Your task to perform on an android device: turn pop-ups on in chrome Image 0: 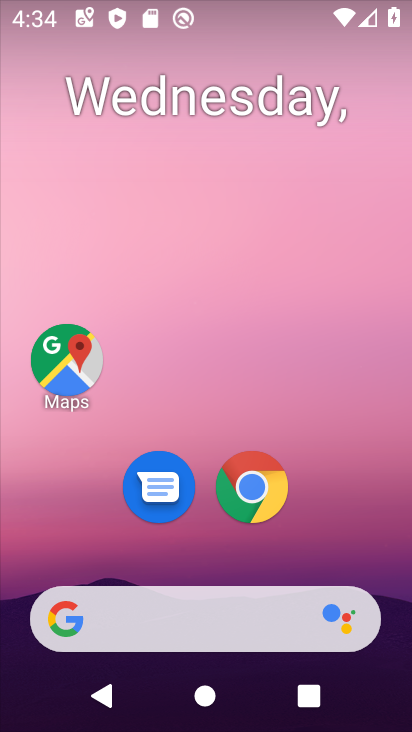
Step 0: press home button
Your task to perform on an android device: turn pop-ups on in chrome Image 1: 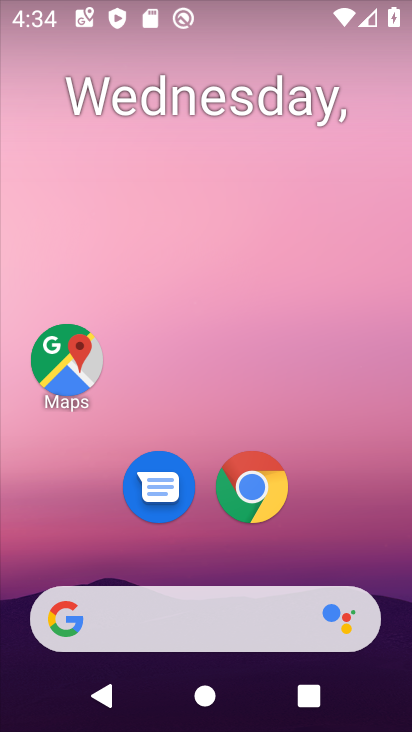
Step 1: press home button
Your task to perform on an android device: turn pop-ups on in chrome Image 2: 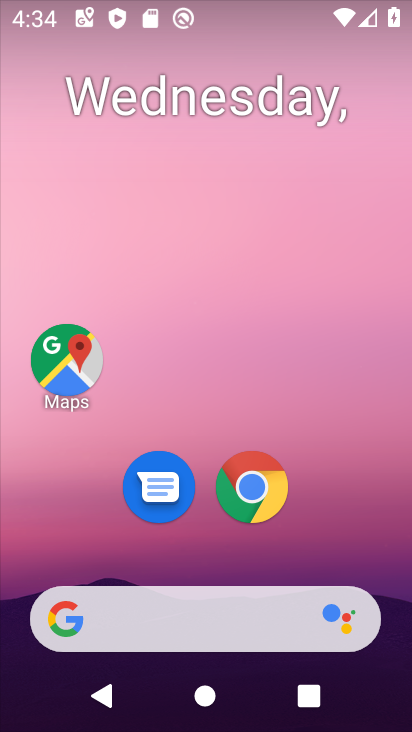
Step 2: click (246, 486)
Your task to perform on an android device: turn pop-ups on in chrome Image 3: 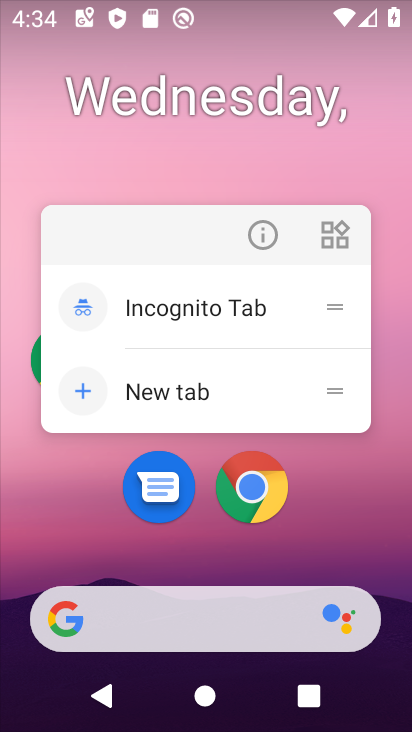
Step 3: click (252, 482)
Your task to perform on an android device: turn pop-ups on in chrome Image 4: 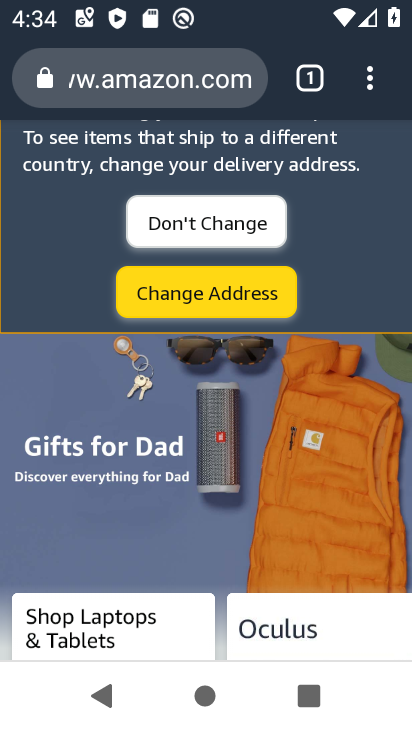
Step 4: click (363, 67)
Your task to perform on an android device: turn pop-ups on in chrome Image 5: 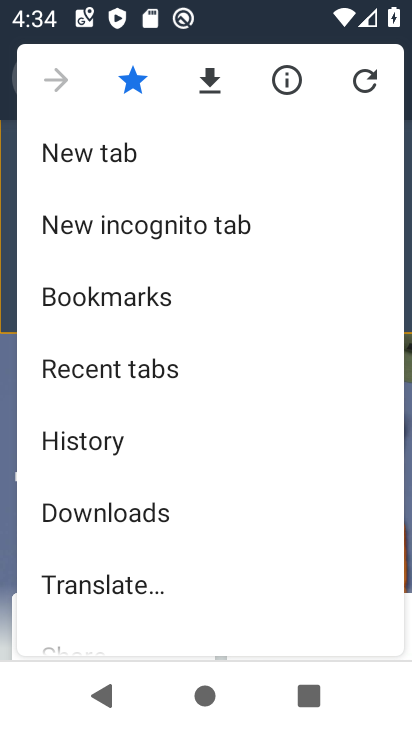
Step 5: drag from (206, 570) to (239, 97)
Your task to perform on an android device: turn pop-ups on in chrome Image 6: 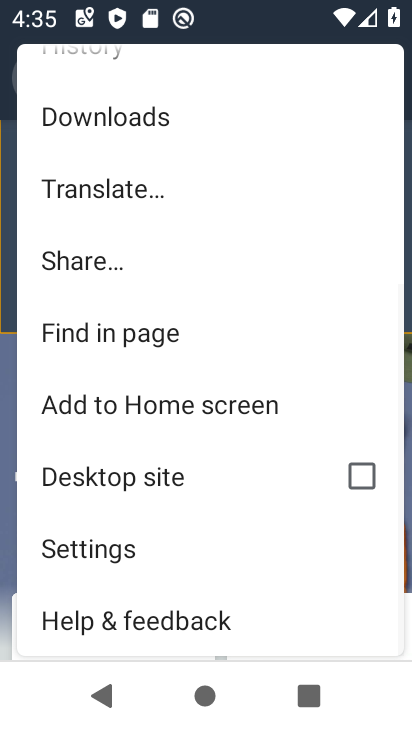
Step 6: click (156, 552)
Your task to perform on an android device: turn pop-ups on in chrome Image 7: 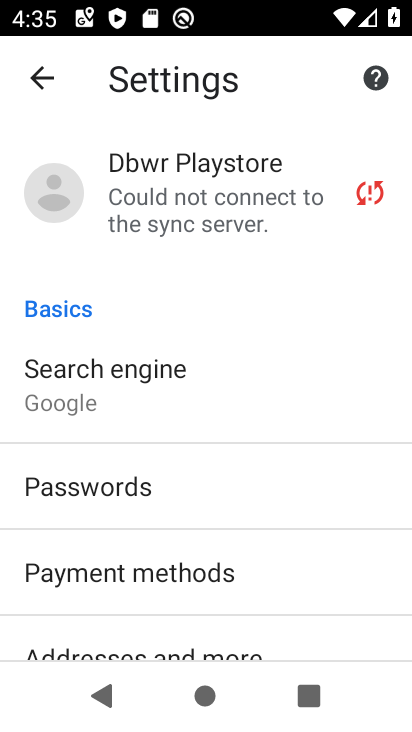
Step 7: drag from (308, 633) to (301, 127)
Your task to perform on an android device: turn pop-ups on in chrome Image 8: 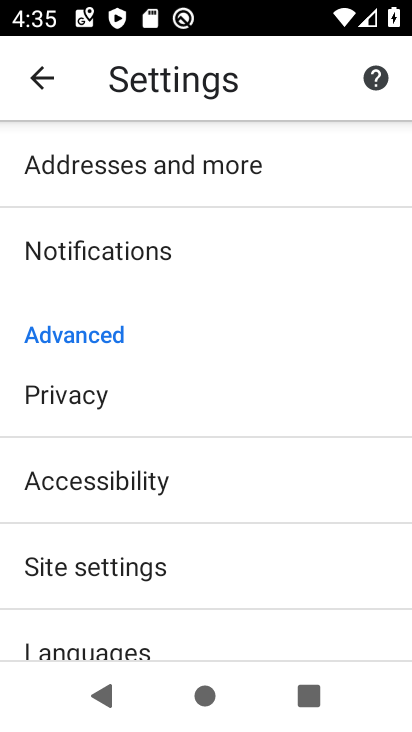
Step 8: drag from (229, 483) to (240, 409)
Your task to perform on an android device: turn pop-ups on in chrome Image 9: 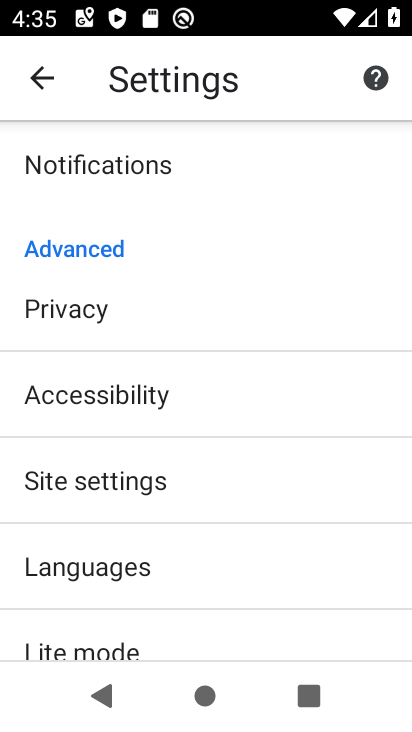
Step 9: click (179, 473)
Your task to perform on an android device: turn pop-ups on in chrome Image 10: 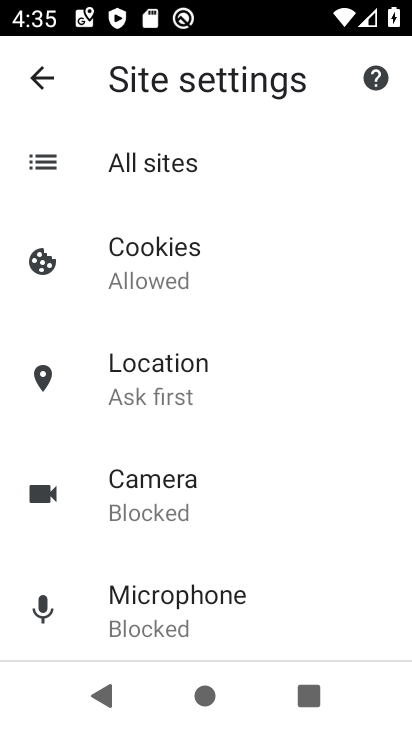
Step 10: drag from (127, 595) to (164, 149)
Your task to perform on an android device: turn pop-ups on in chrome Image 11: 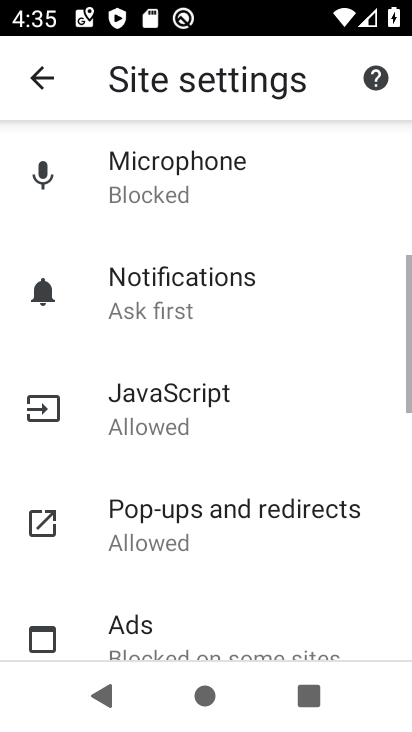
Step 11: click (84, 531)
Your task to perform on an android device: turn pop-ups on in chrome Image 12: 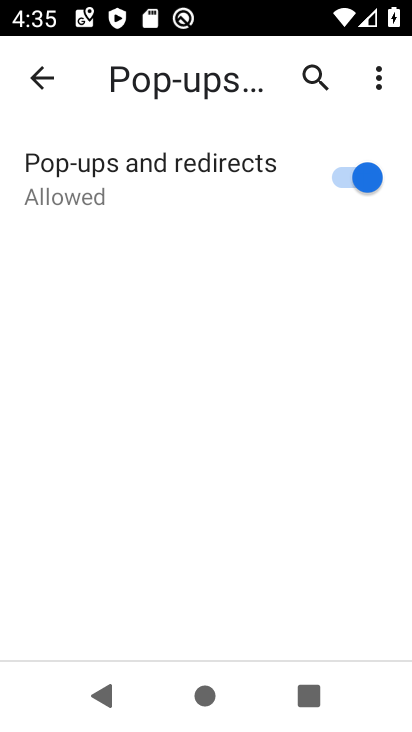
Step 12: task complete